Your task to perform on an android device: all mails in gmail Image 0: 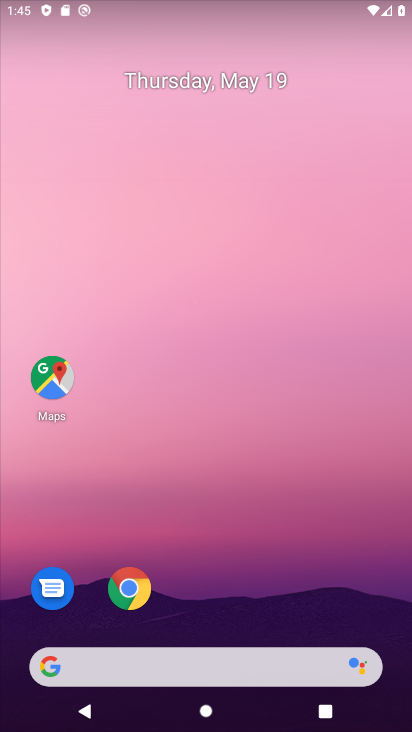
Step 0: drag from (270, 525) to (323, 105)
Your task to perform on an android device: all mails in gmail Image 1: 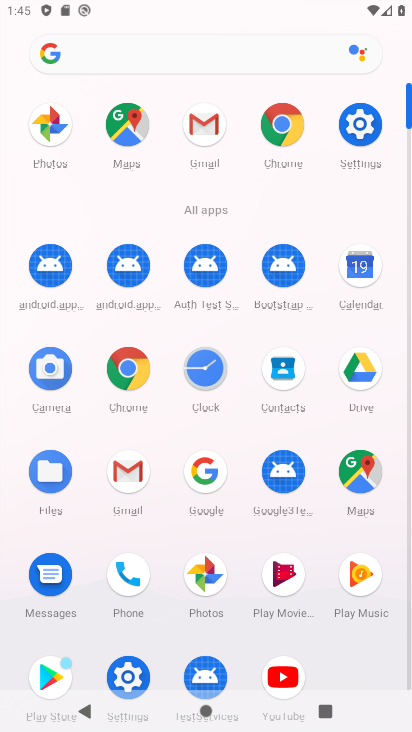
Step 1: click (205, 125)
Your task to perform on an android device: all mails in gmail Image 2: 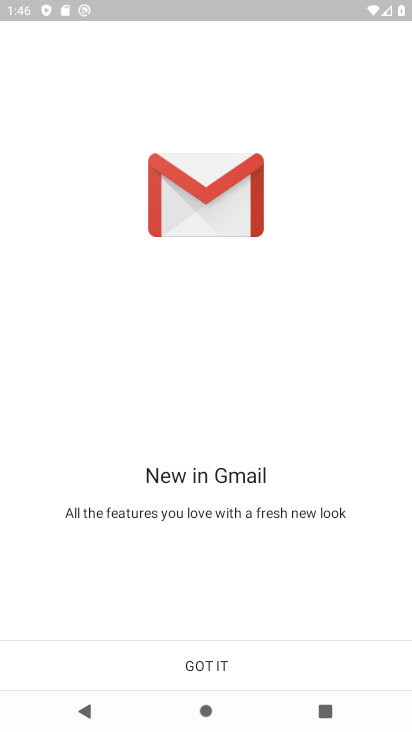
Step 2: click (223, 649)
Your task to perform on an android device: all mails in gmail Image 3: 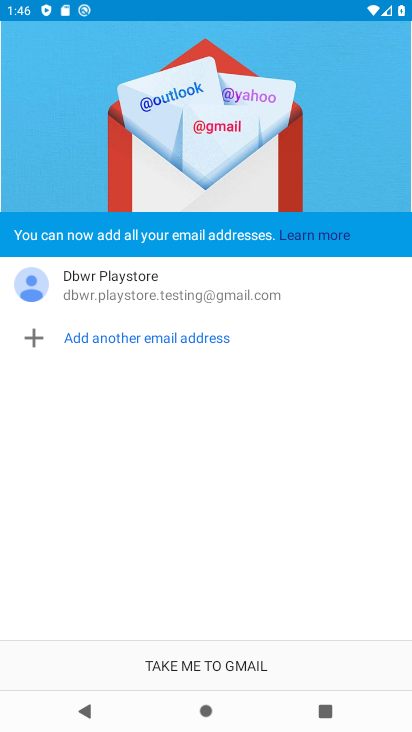
Step 3: click (185, 648)
Your task to perform on an android device: all mails in gmail Image 4: 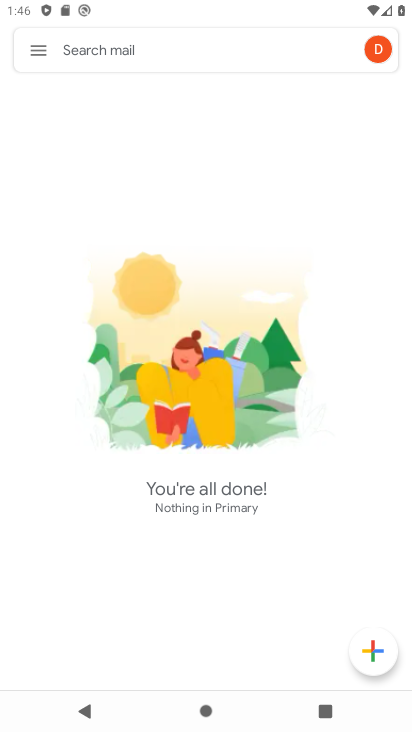
Step 4: click (39, 42)
Your task to perform on an android device: all mails in gmail Image 5: 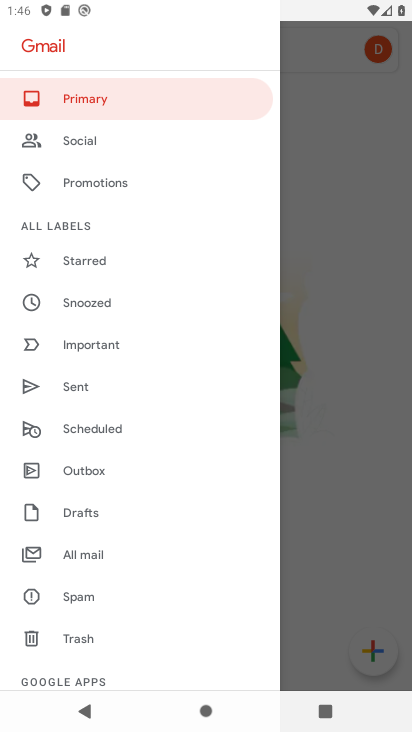
Step 5: click (93, 544)
Your task to perform on an android device: all mails in gmail Image 6: 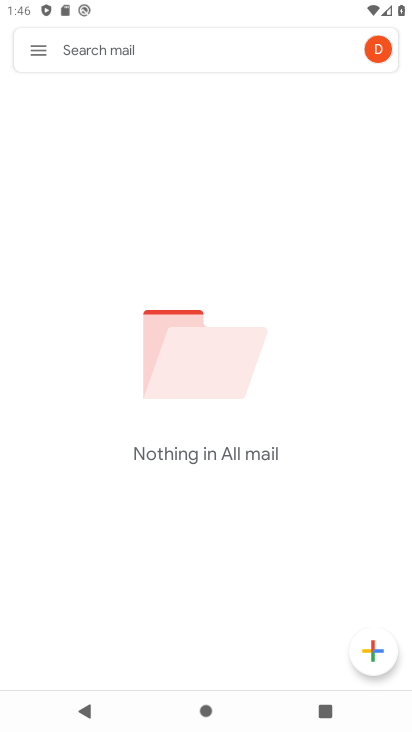
Step 6: task complete